Your task to perform on an android device: turn off priority inbox in the gmail app Image 0: 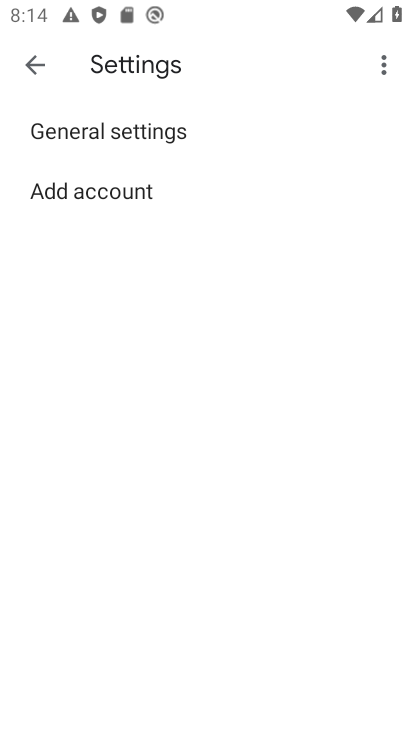
Step 0: click (33, 57)
Your task to perform on an android device: turn off priority inbox in the gmail app Image 1: 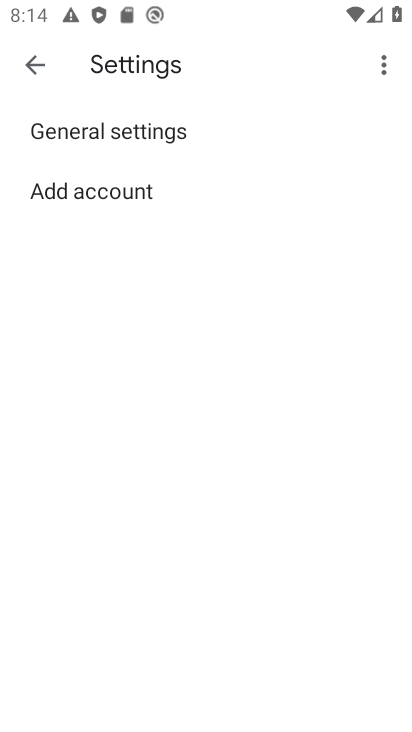
Step 1: click (34, 61)
Your task to perform on an android device: turn off priority inbox in the gmail app Image 2: 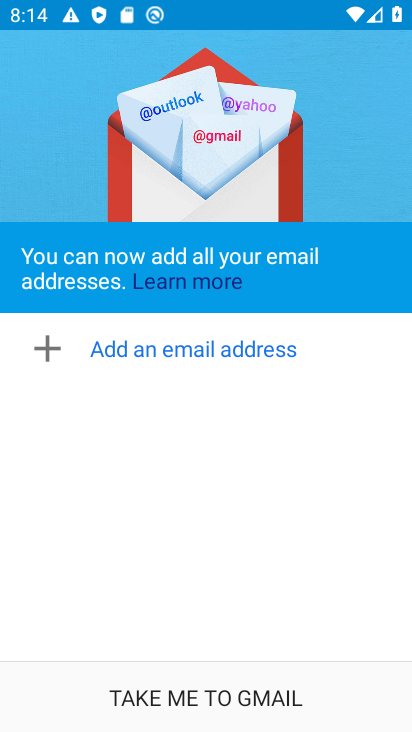
Step 2: press back button
Your task to perform on an android device: turn off priority inbox in the gmail app Image 3: 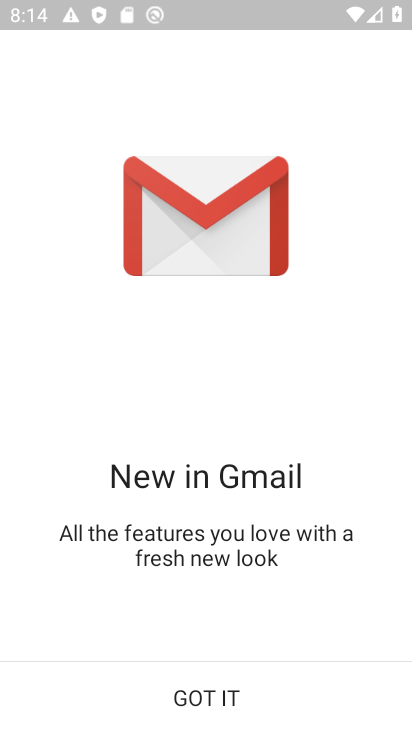
Step 3: press home button
Your task to perform on an android device: turn off priority inbox in the gmail app Image 4: 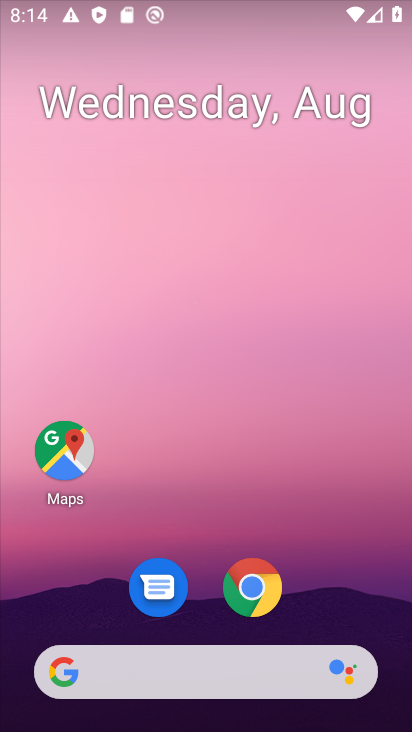
Step 4: drag from (236, 702) to (131, 155)
Your task to perform on an android device: turn off priority inbox in the gmail app Image 5: 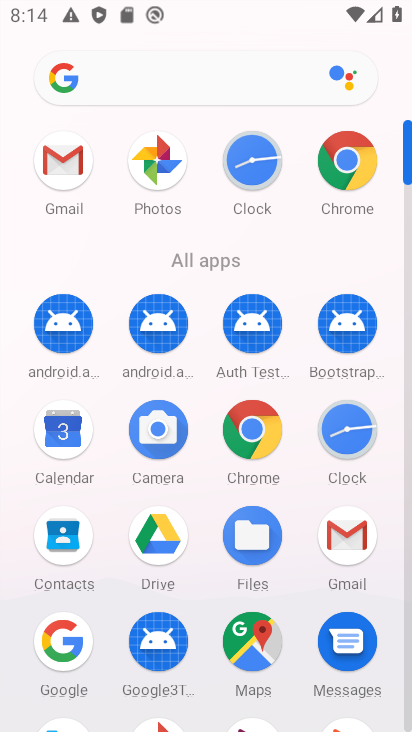
Step 5: click (345, 527)
Your task to perform on an android device: turn off priority inbox in the gmail app Image 6: 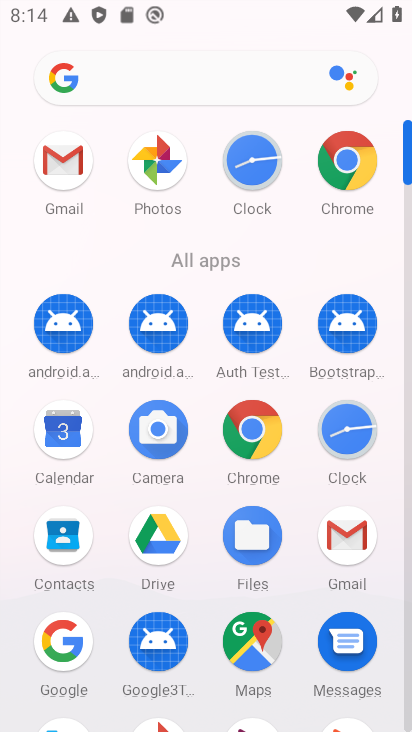
Step 6: click (345, 527)
Your task to perform on an android device: turn off priority inbox in the gmail app Image 7: 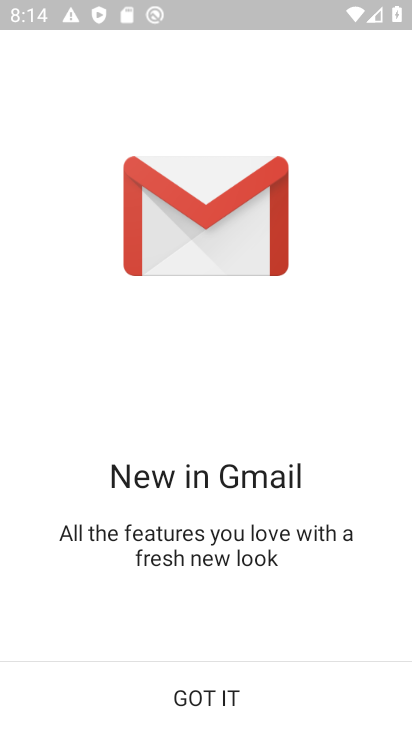
Step 7: click (186, 700)
Your task to perform on an android device: turn off priority inbox in the gmail app Image 8: 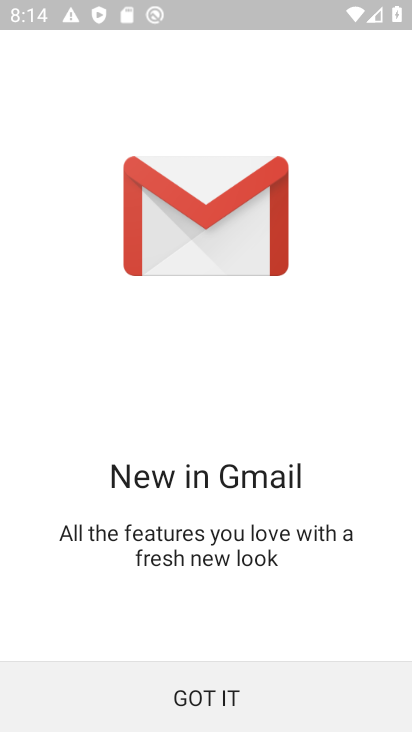
Step 8: click (189, 698)
Your task to perform on an android device: turn off priority inbox in the gmail app Image 9: 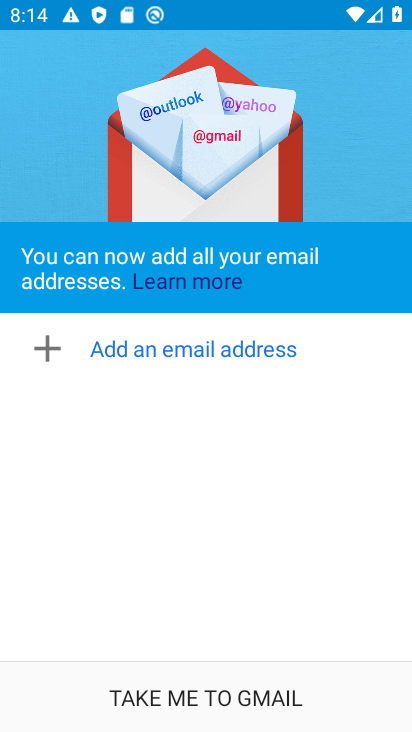
Step 9: click (211, 696)
Your task to perform on an android device: turn off priority inbox in the gmail app Image 10: 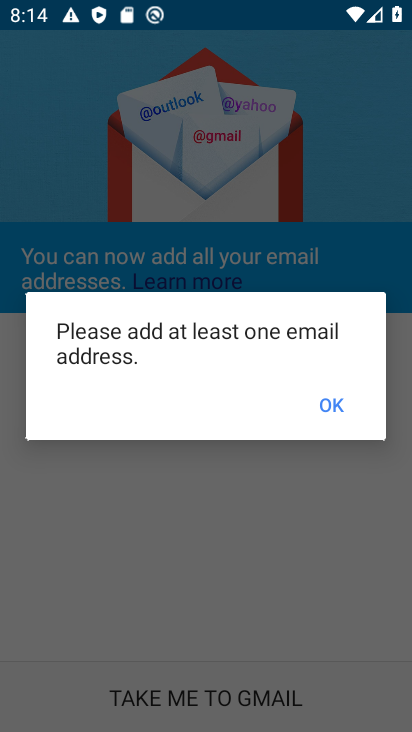
Step 10: click (325, 398)
Your task to perform on an android device: turn off priority inbox in the gmail app Image 11: 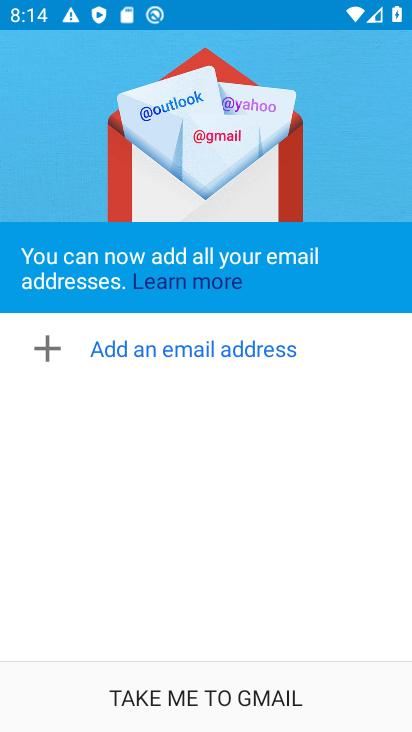
Step 11: click (325, 398)
Your task to perform on an android device: turn off priority inbox in the gmail app Image 12: 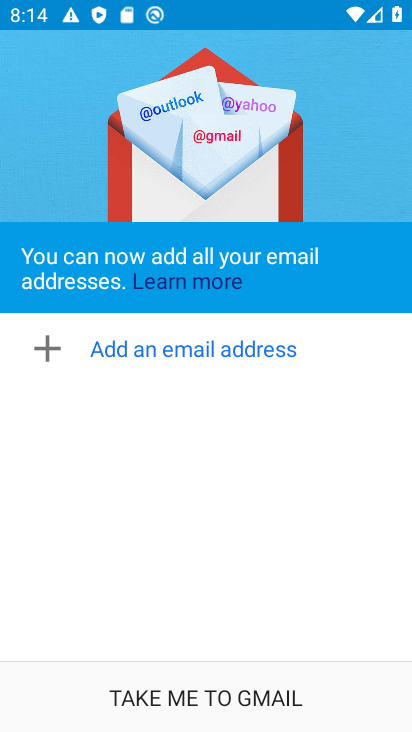
Step 12: click (326, 399)
Your task to perform on an android device: turn off priority inbox in the gmail app Image 13: 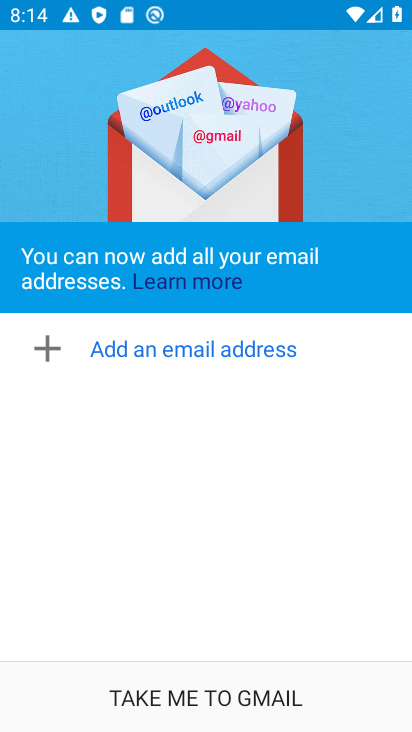
Step 13: click (332, 400)
Your task to perform on an android device: turn off priority inbox in the gmail app Image 14: 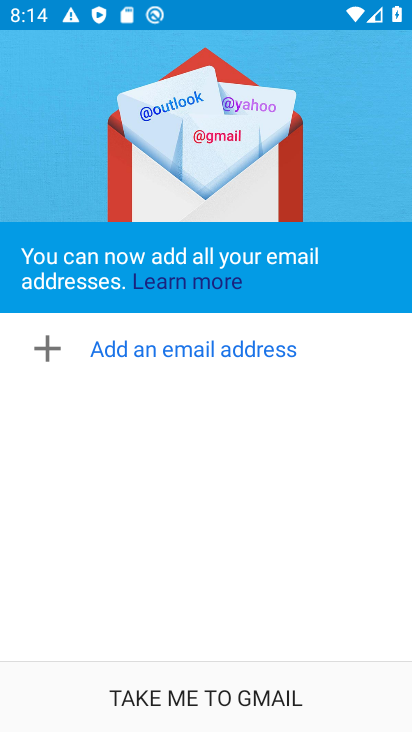
Step 14: press back button
Your task to perform on an android device: turn off priority inbox in the gmail app Image 15: 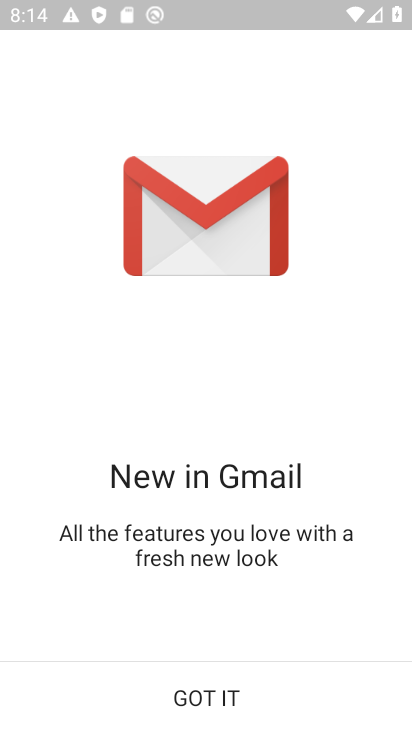
Step 15: click (179, 696)
Your task to perform on an android device: turn off priority inbox in the gmail app Image 16: 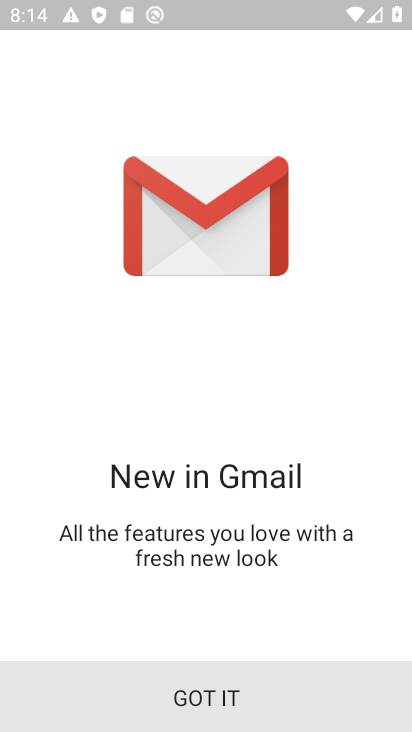
Step 16: click (181, 694)
Your task to perform on an android device: turn off priority inbox in the gmail app Image 17: 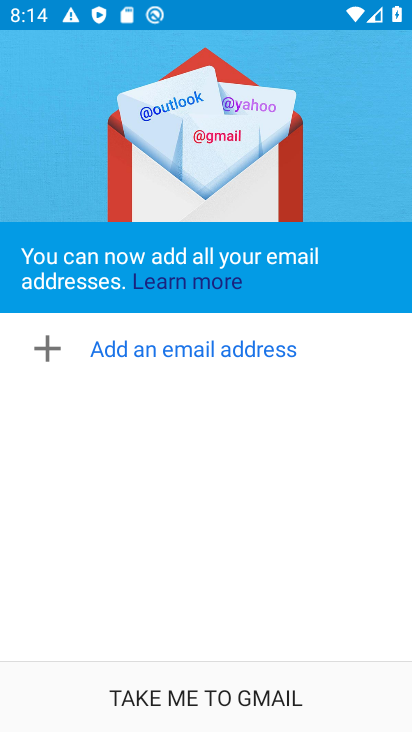
Step 17: press back button
Your task to perform on an android device: turn off priority inbox in the gmail app Image 18: 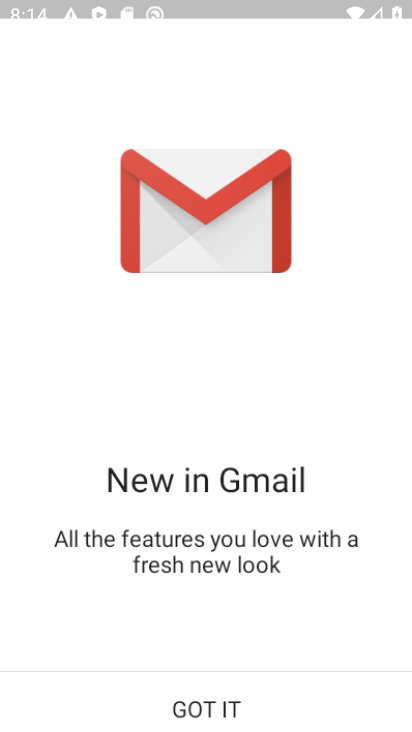
Step 18: press back button
Your task to perform on an android device: turn off priority inbox in the gmail app Image 19: 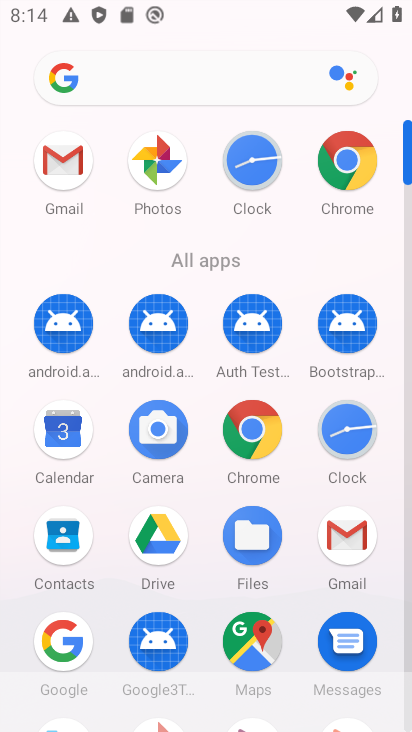
Step 19: click (322, 536)
Your task to perform on an android device: turn off priority inbox in the gmail app Image 20: 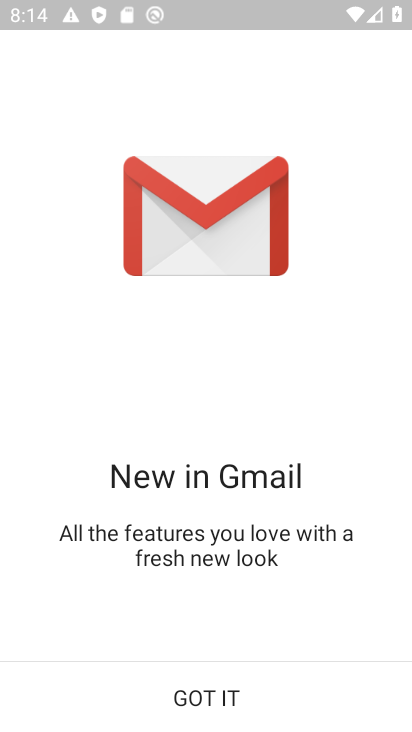
Step 20: click (228, 687)
Your task to perform on an android device: turn off priority inbox in the gmail app Image 21: 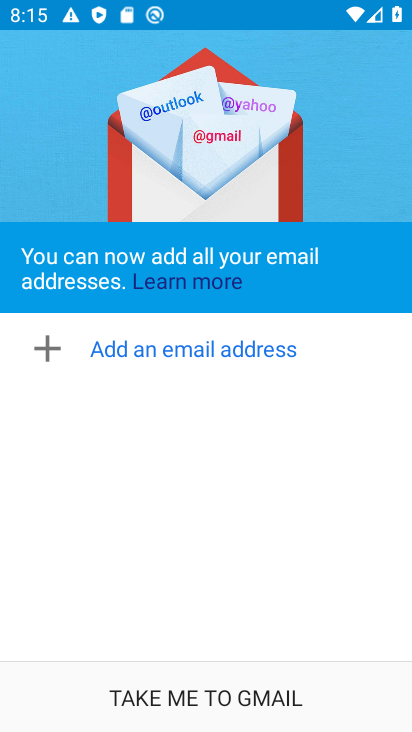
Step 21: click (157, 692)
Your task to perform on an android device: turn off priority inbox in the gmail app Image 22: 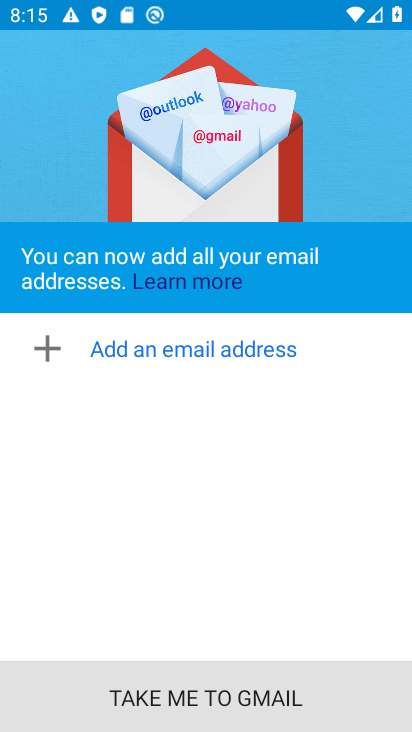
Step 22: click (157, 692)
Your task to perform on an android device: turn off priority inbox in the gmail app Image 23: 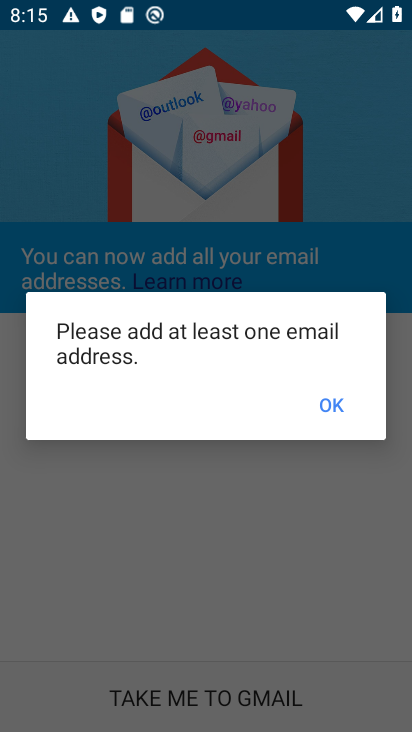
Step 23: click (157, 692)
Your task to perform on an android device: turn off priority inbox in the gmail app Image 24: 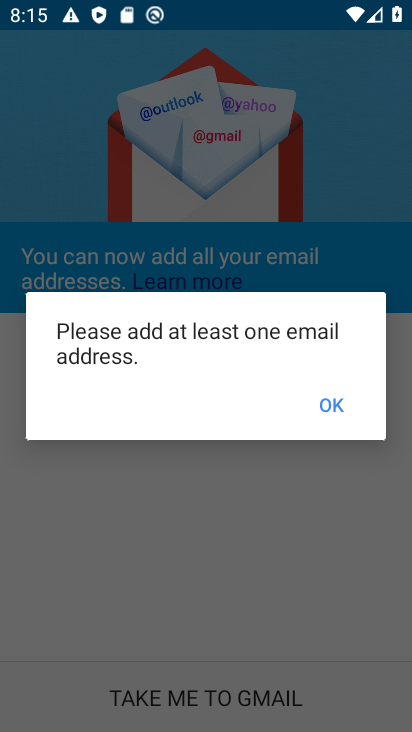
Step 24: click (328, 394)
Your task to perform on an android device: turn off priority inbox in the gmail app Image 25: 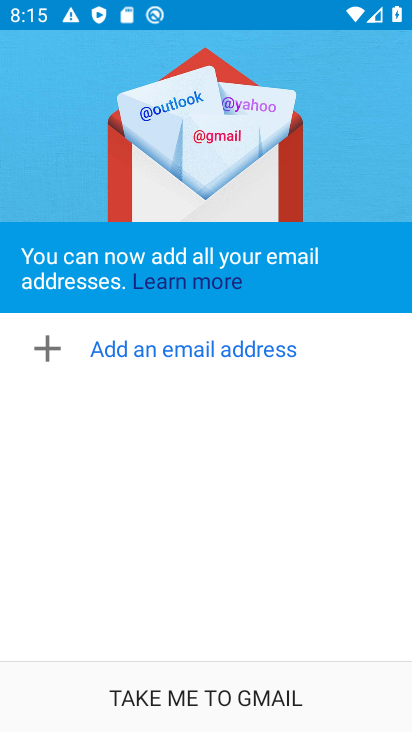
Step 25: click (178, 684)
Your task to perform on an android device: turn off priority inbox in the gmail app Image 26: 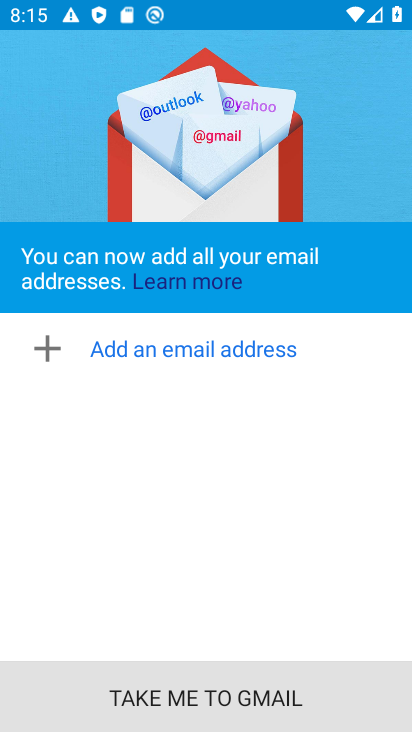
Step 26: click (180, 693)
Your task to perform on an android device: turn off priority inbox in the gmail app Image 27: 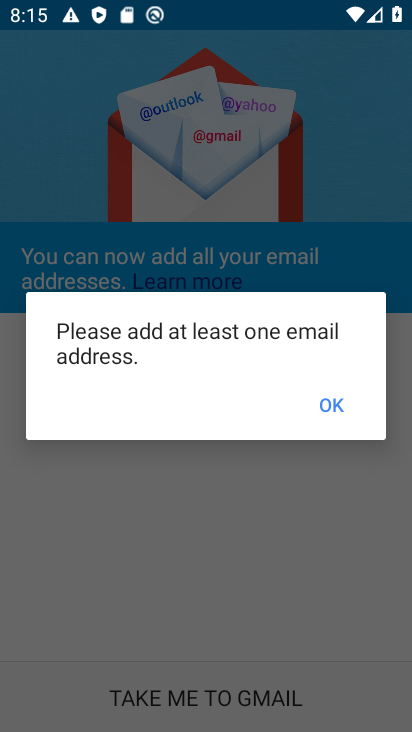
Step 27: click (180, 693)
Your task to perform on an android device: turn off priority inbox in the gmail app Image 28: 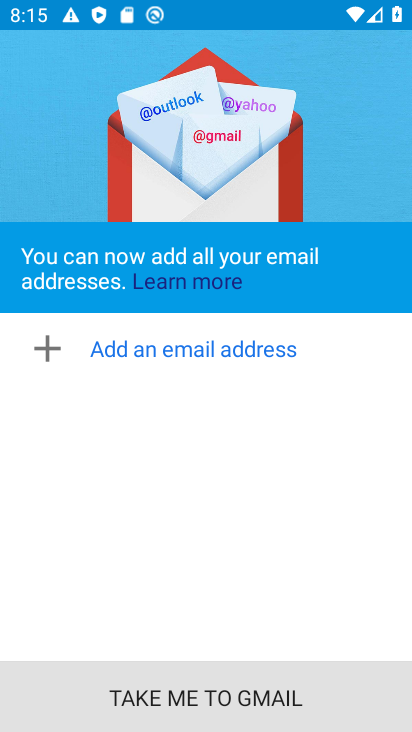
Step 28: click (183, 694)
Your task to perform on an android device: turn off priority inbox in the gmail app Image 29: 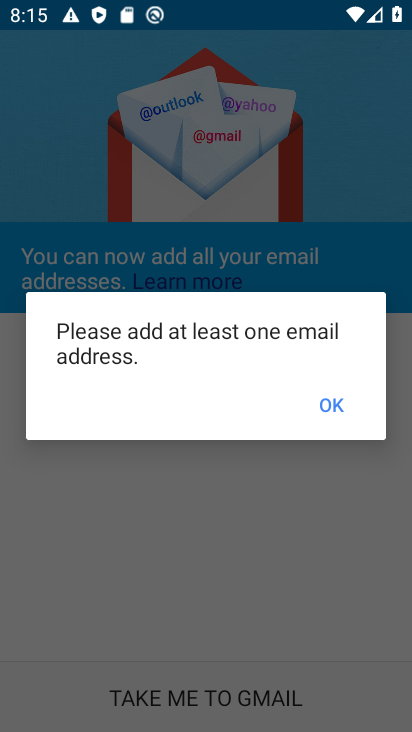
Step 29: click (260, 688)
Your task to perform on an android device: turn off priority inbox in the gmail app Image 30: 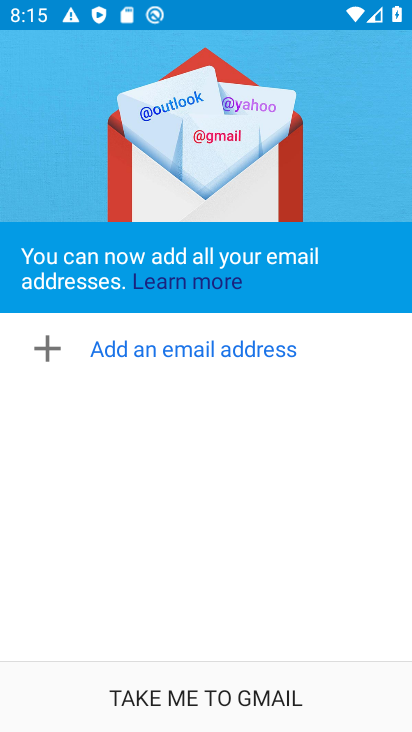
Step 30: task complete